Your task to perform on an android device: open app "Facebook Messenger" (install if not already installed) and go to login screen Image 0: 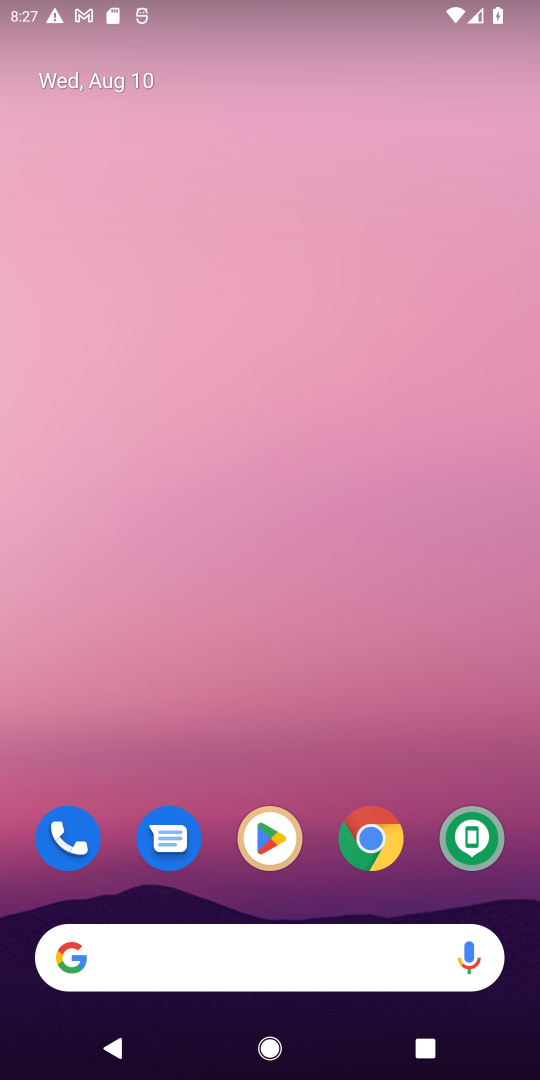
Step 0: click (266, 834)
Your task to perform on an android device: open app "Facebook Messenger" (install if not already installed) and go to login screen Image 1: 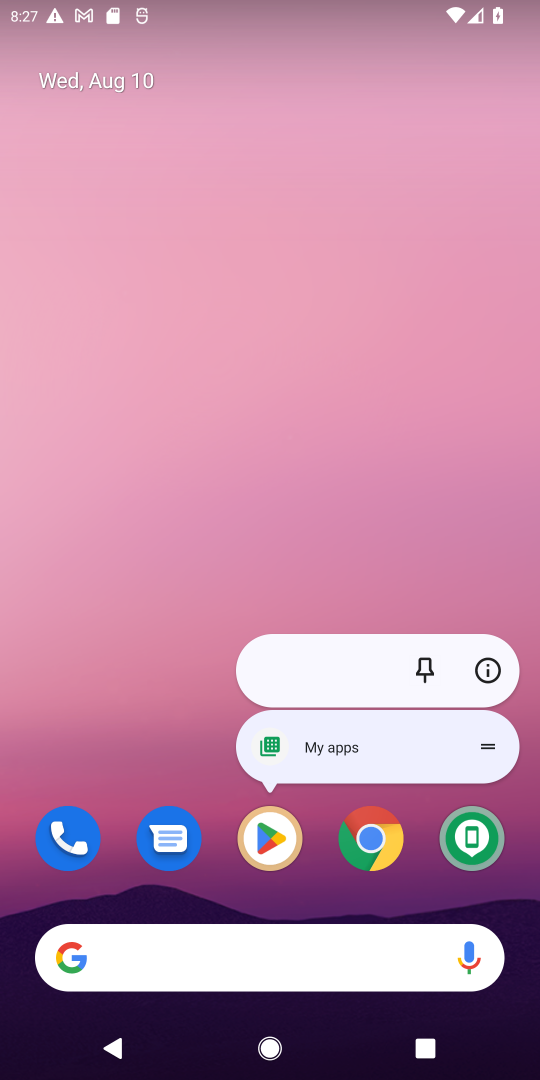
Step 1: click (266, 838)
Your task to perform on an android device: open app "Facebook Messenger" (install if not already installed) and go to login screen Image 2: 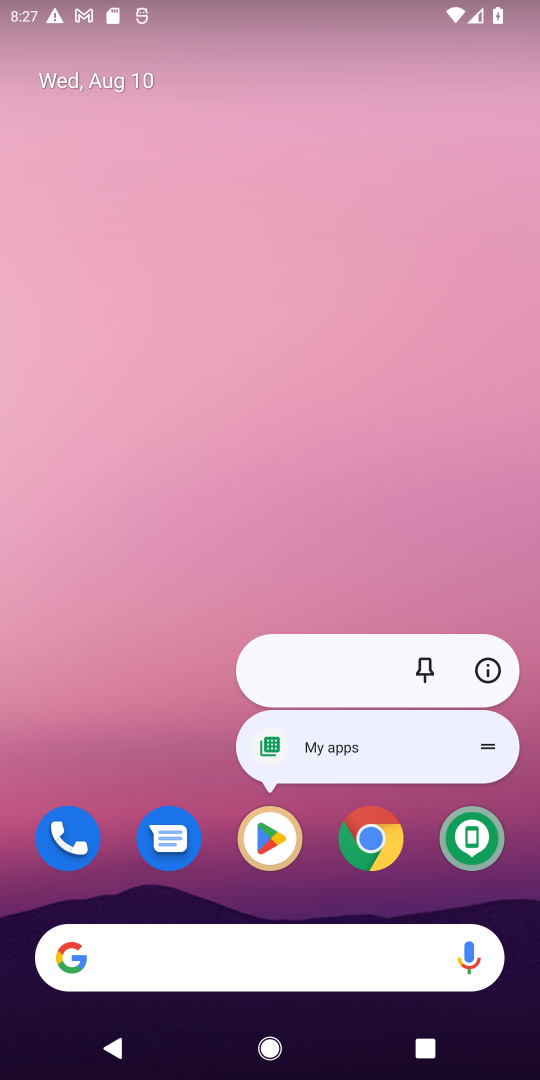
Step 2: click (268, 840)
Your task to perform on an android device: open app "Facebook Messenger" (install if not already installed) and go to login screen Image 3: 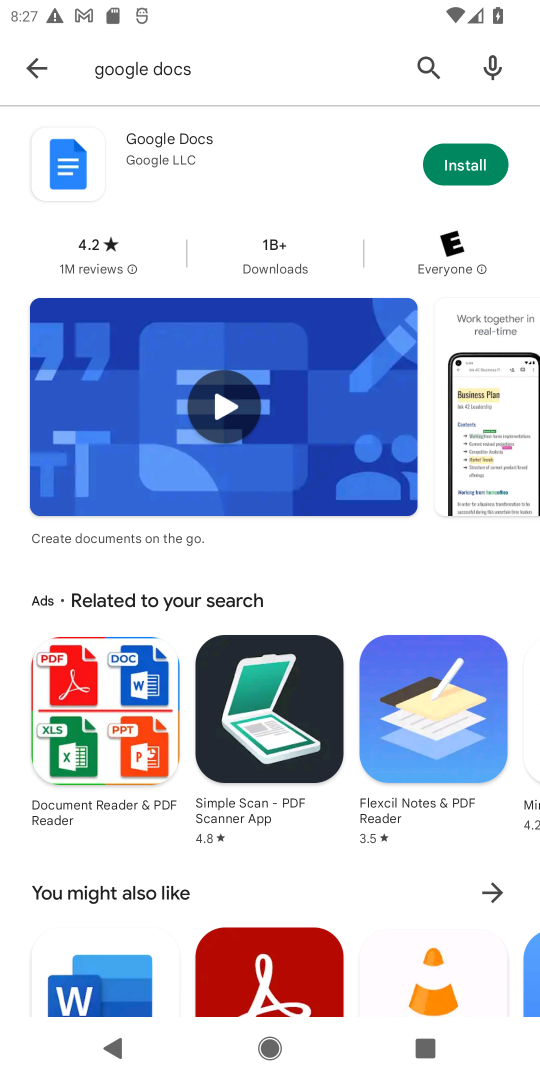
Step 3: click (426, 64)
Your task to perform on an android device: open app "Facebook Messenger" (install if not already installed) and go to login screen Image 4: 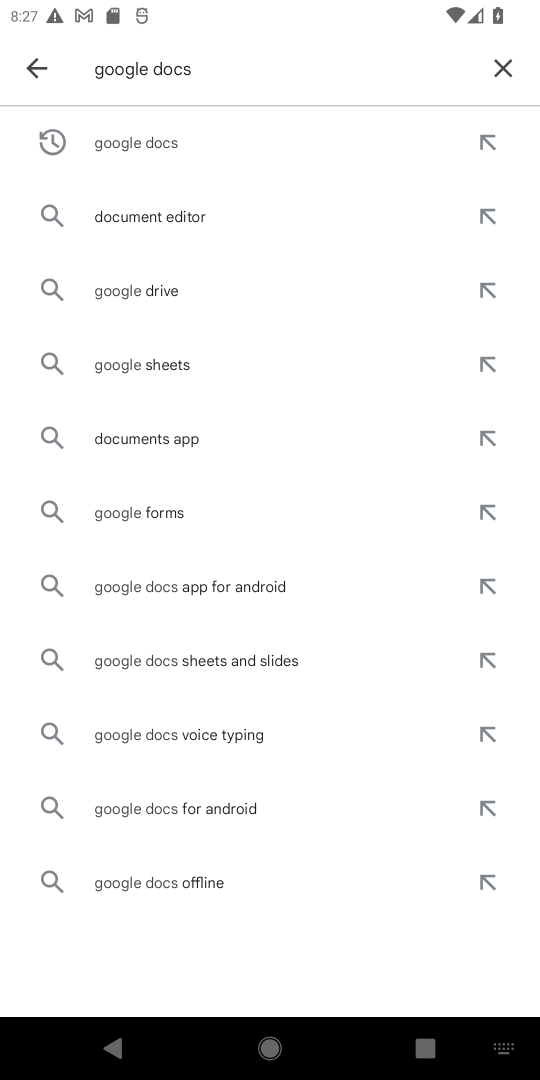
Step 4: click (500, 59)
Your task to perform on an android device: open app "Facebook Messenger" (install if not already installed) and go to login screen Image 5: 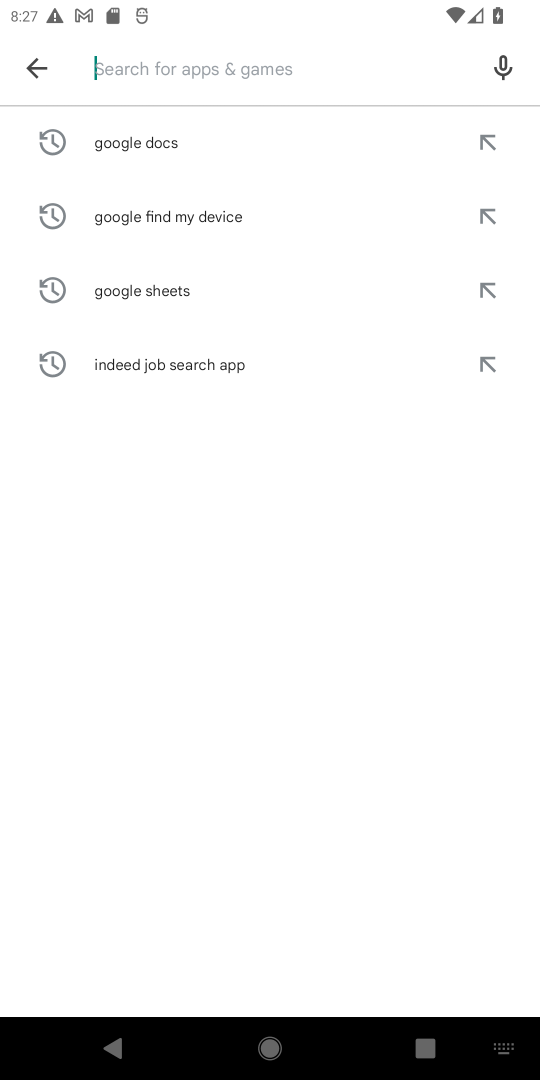
Step 5: type "facebook messenger"
Your task to perform on an android device: open app "Facebook Messenger" (install if not already installed) and go to login screen Image 6: 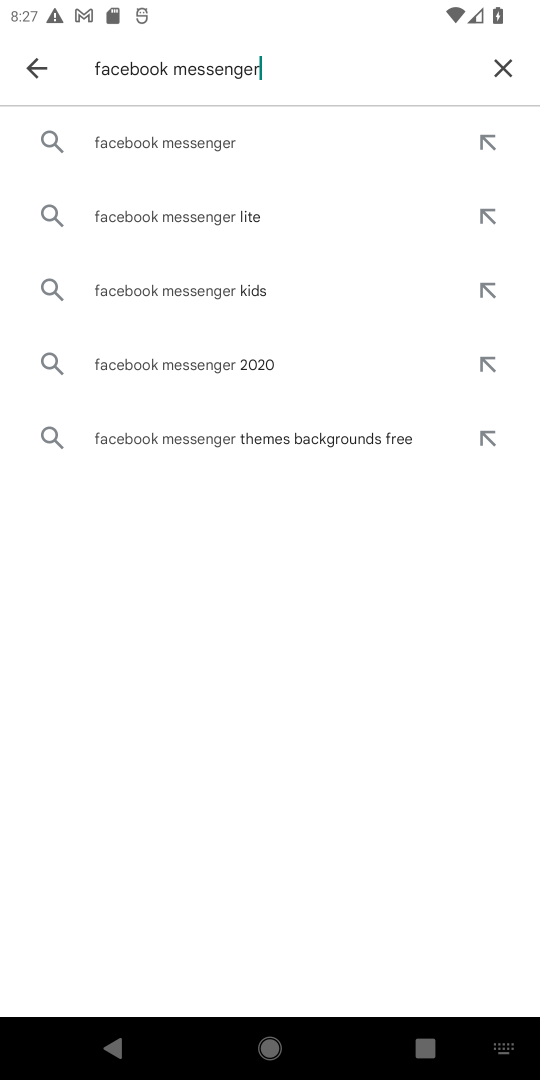
Step 6: click (226, 142)
Your task to perform on an android device: open app "Facebook Messenger" (install if not already installed) and go to login screen Image 7: 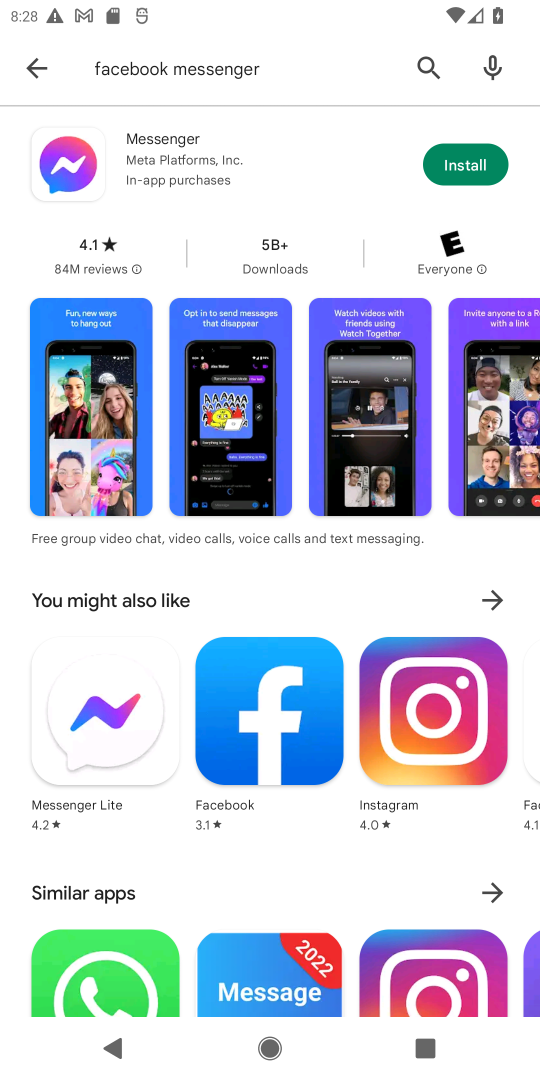
Step 7: click (453, 166)
Your task to perform on an android device: open app "Facebook Messenger" (install if not already installed) and go to login screen Image 8: 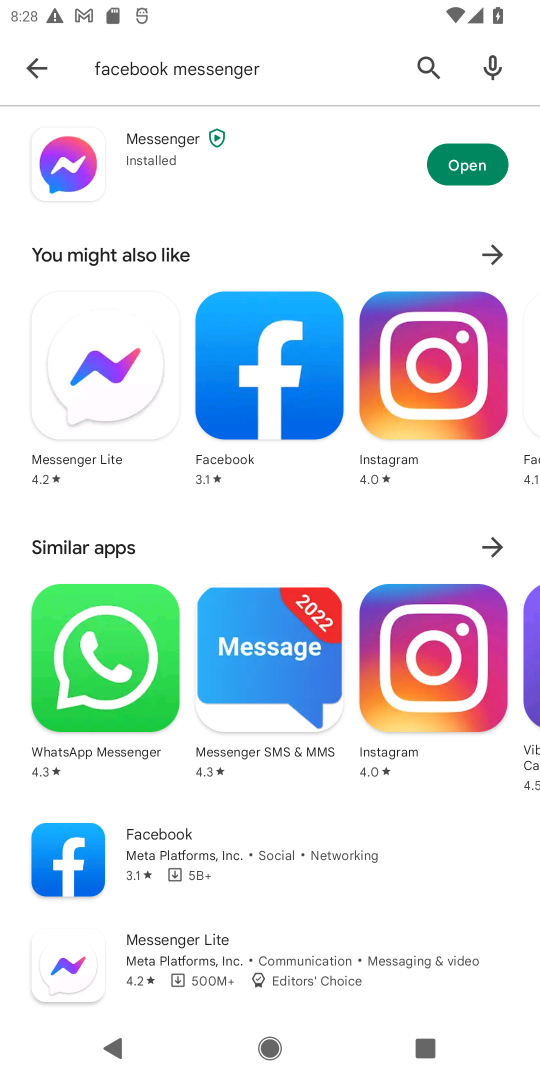
Step 8: click (487, 174)
Your task to perform on an android device: open app "Facebook Messenger" (install if not already installed) and go to login screen Image 9: 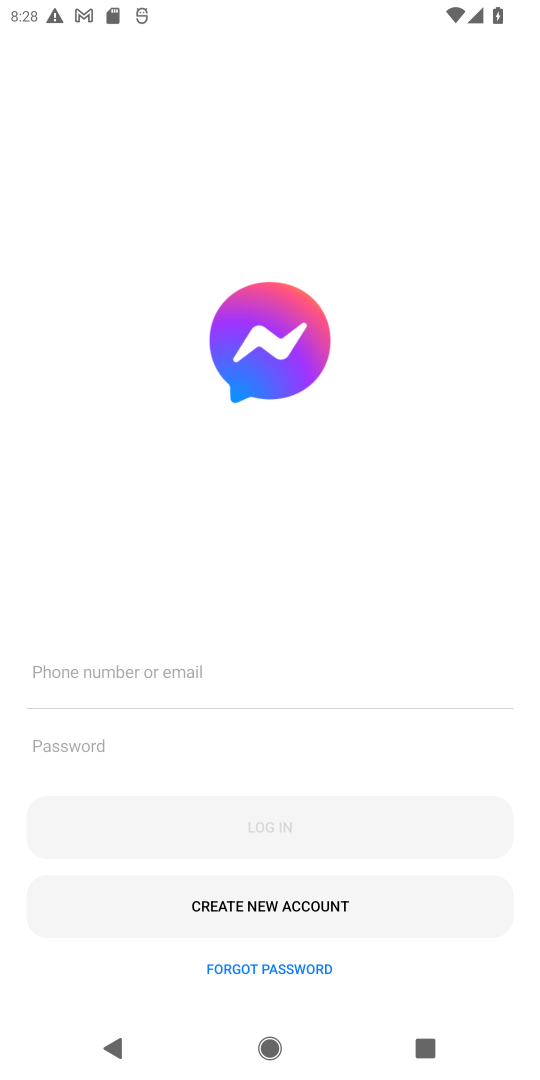
Step 9: task complete